Your task to perform on an android device: Open Yahoo.com Image 0: 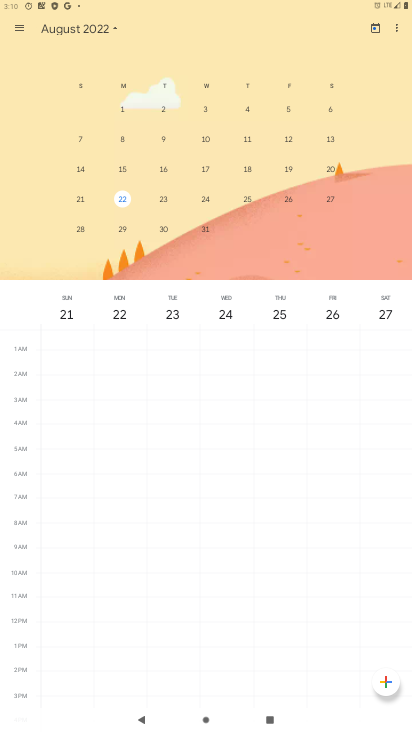
Step 0: press home button
Your task to perform on an android device: Open Yahoo.com Image 1: 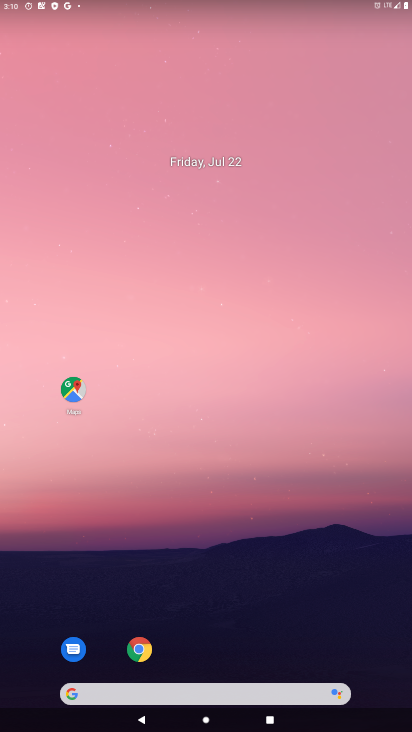
Step 1: drag from (290, 630) to (255, 39)
Your task to perform on an android device: Open Yahoo.com Image 2: 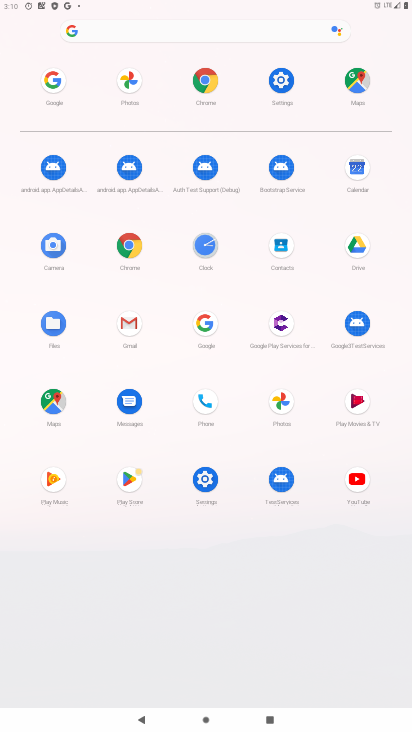
Step 2: click (204, 81)
Your task to perform on an android device: Open Yahoo.com Image 3: 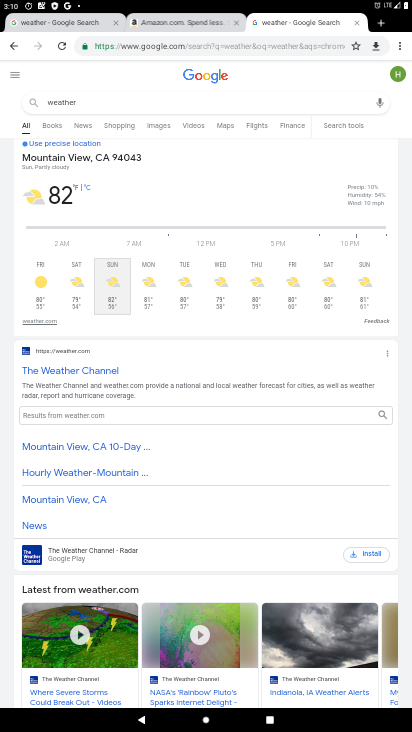
Step 3: click (187, 39)
Your task to perform on an android device: Open Yahoo.com Image 4: 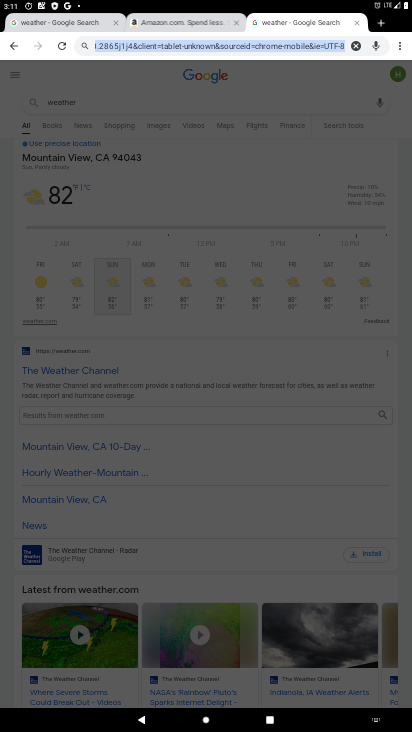
Step 4: type "yahoo.com"
Your task to perform on an android device: Open Yahoo.com Image 5: 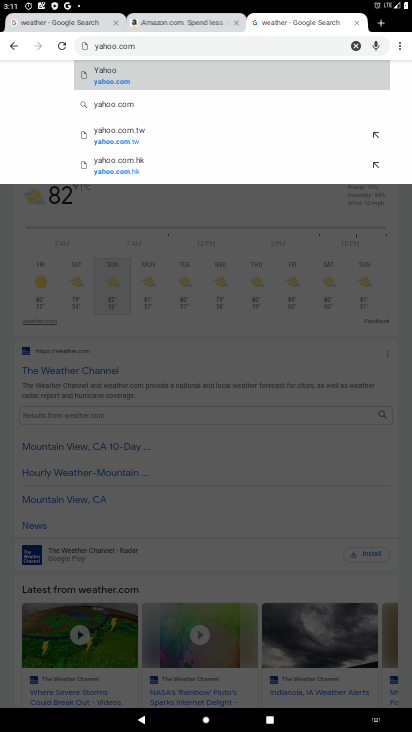
Step 5: click (108, 59)
Your task to perform on an android device: Open Yahoo.com Image 6: 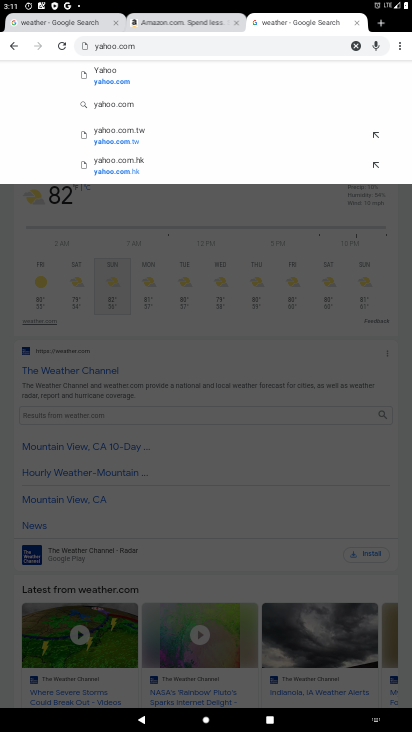
Step 6: click (128, 80)
Your task to perform on an android device: Open Yahoo.com Image 7: 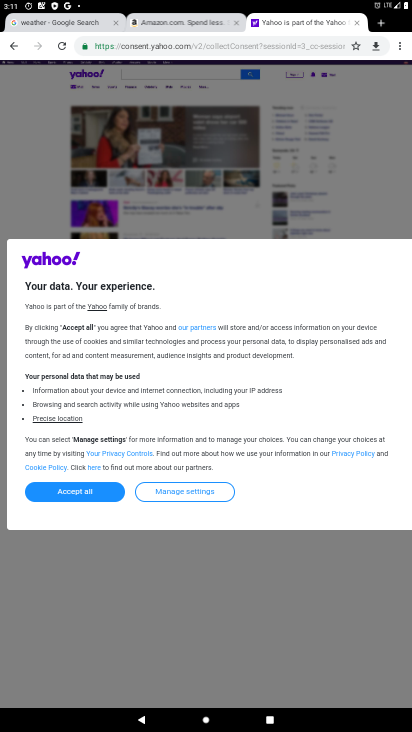
Step 7: task complete